Your task to perform on an android device: add a contact in the contacts app Image 0: 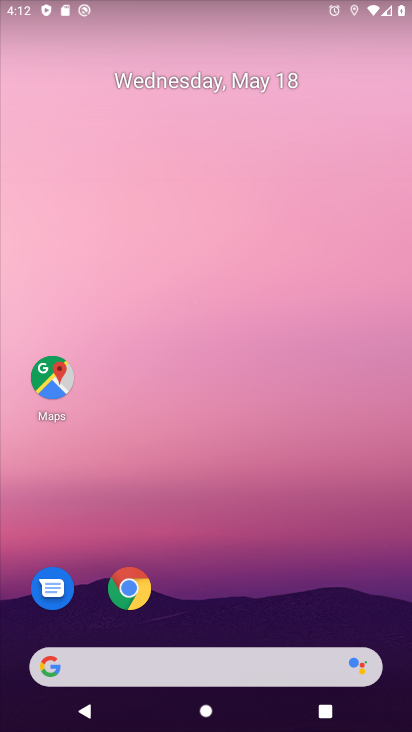
Step 0: drag from (228, 568) to (261, 97)
Your task to perform on an android device: add a contact in the contacts app Image 1: 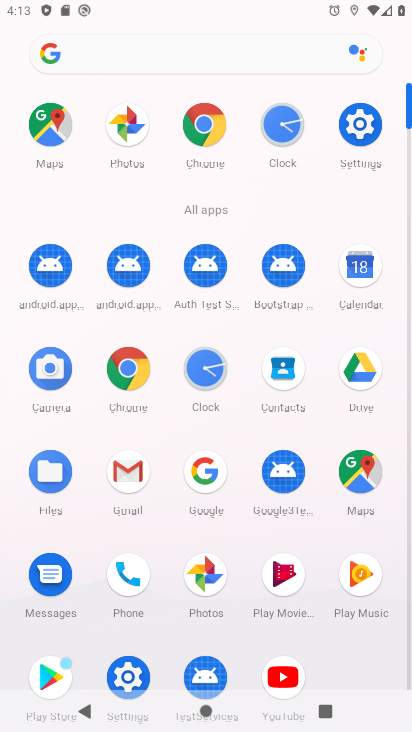
Step 1: click (292, 367)
Your task to perform on an android device: add a contact in the contacts app Image 2: 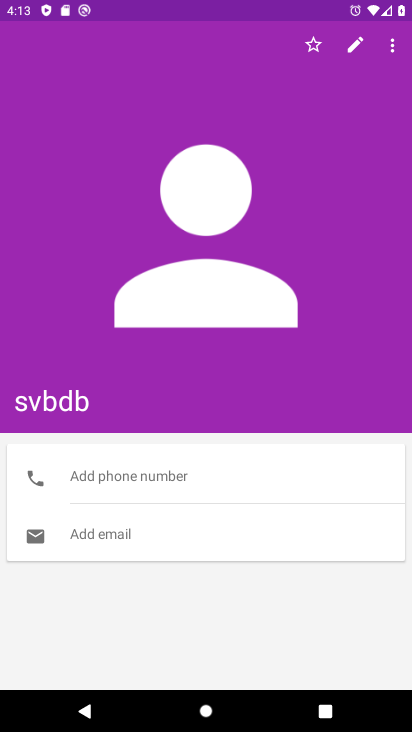
Step 2: press back button
Your task to perform on an android device: add a contact in the contacts app Image 3: 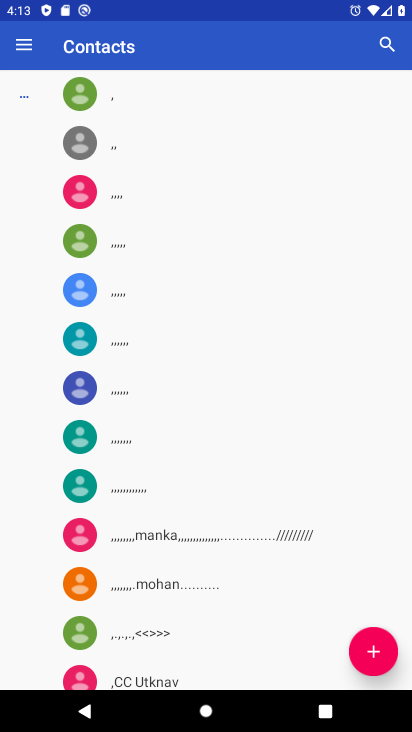
Step 3: click (383, 667)
Your task to perform on an android device: add a contact in the contacts app Image 4: 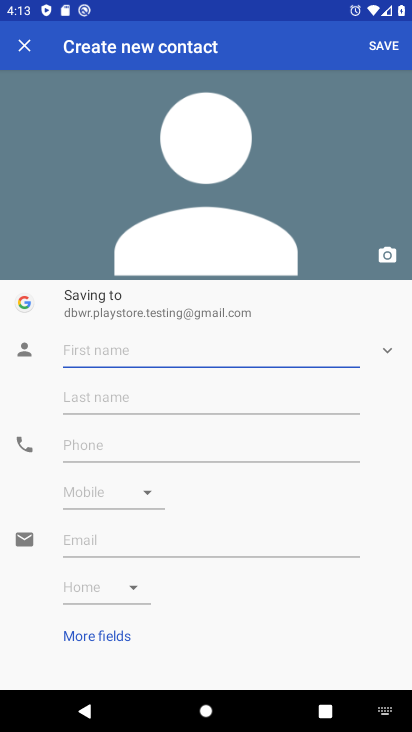
Step 4: type "khohk"
Your task to perform on an android device: add a contact in the contacts app Image 5: 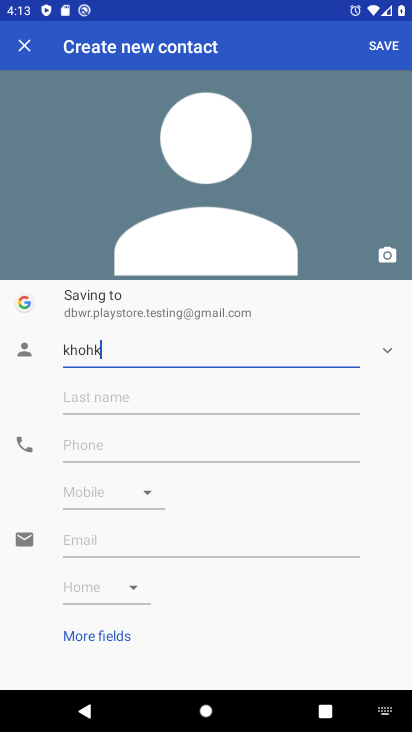
Step 5: type ""
Your task to perform on an android device: add a contact in the contacts app Image 6: 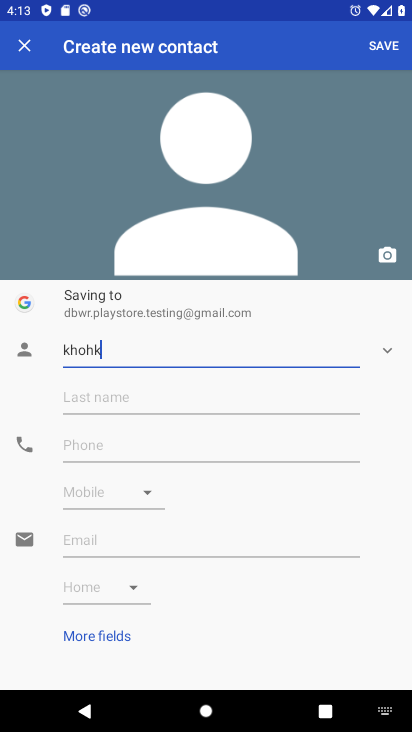
Step 6: click (375, 40)
Your task to perform on an android device: add a contact in the contacts app Image 7: 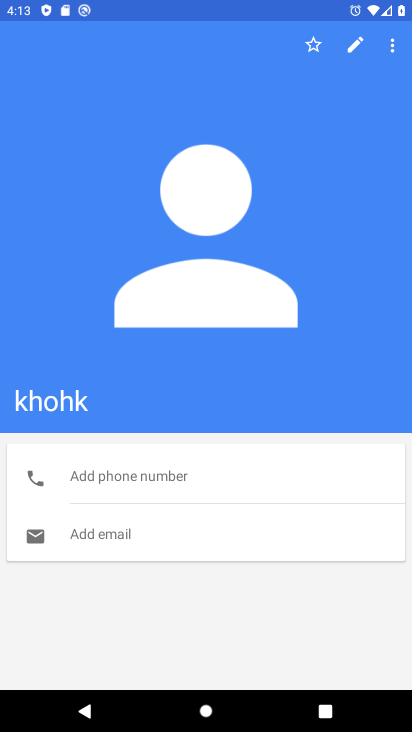
Step 7: task complete